Your task to perform on an android device: Open Google Chrome and click the shortcut for Amazon.com Image 0: 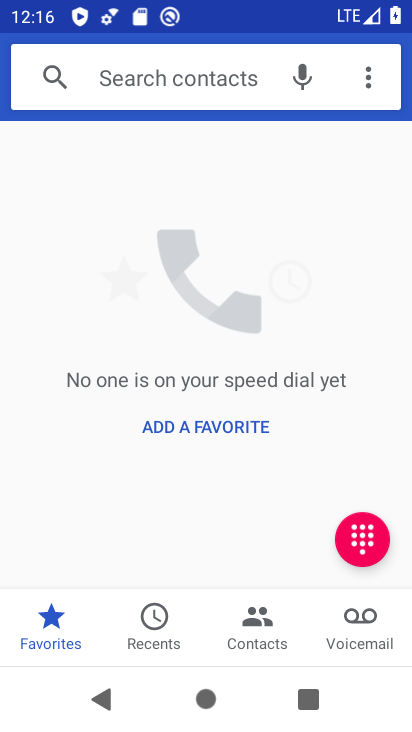
Step 0: press home button
Your task to perform on an android device: Open Google Chrome and click the shortcut for Amazon.com Image 1: 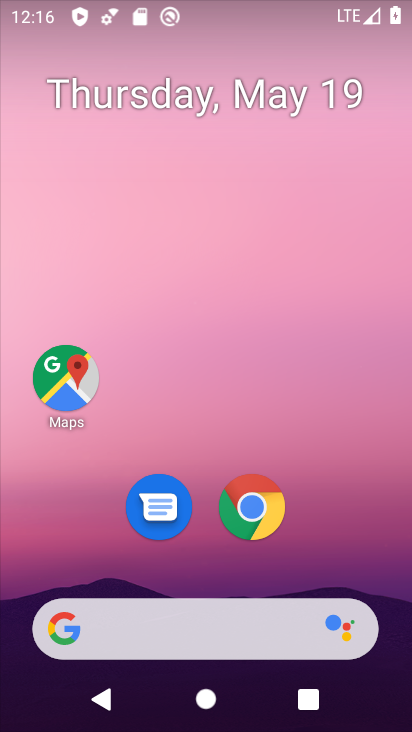
Step 1: click (248, 523)
Your task to perform on an android device: Open Google Chrome and click the shortcut for Amazon.com Image 2: 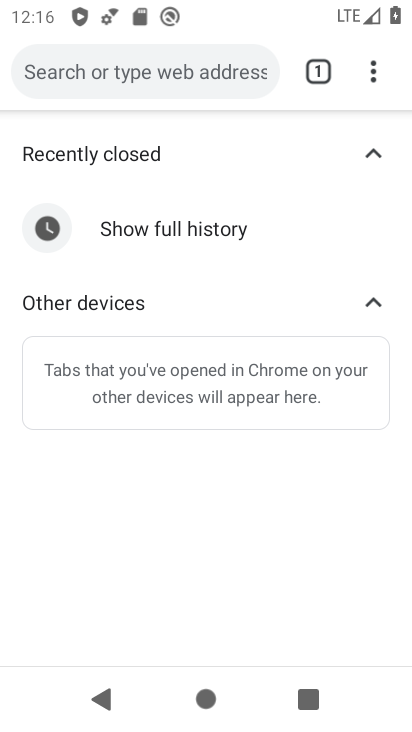
Step 2: click (375, 74)
Your task to perform on an android device: Open Google Chrome and click the shortcut for Amazon.com Image 3: 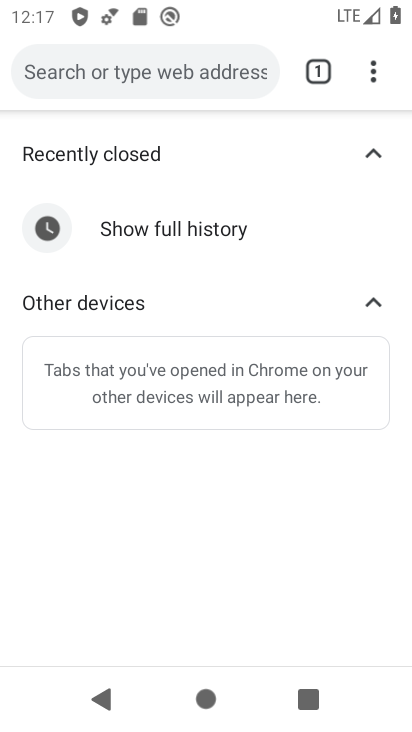
Step 3: click (319, 62)
Your task to perform on an android device: Open Google Chrome and click the shortcut for Amazon.com Image 4: 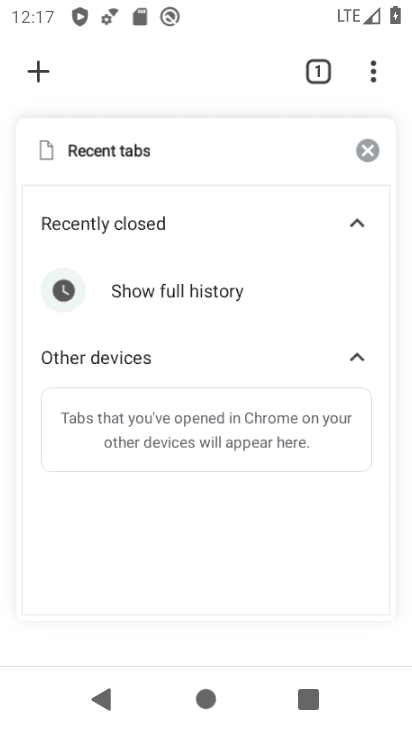
Step 4: click (40, 70)
Your task to perform on an android device: Open Google Chrome and click the shortcut for Amazon.com Image 5: 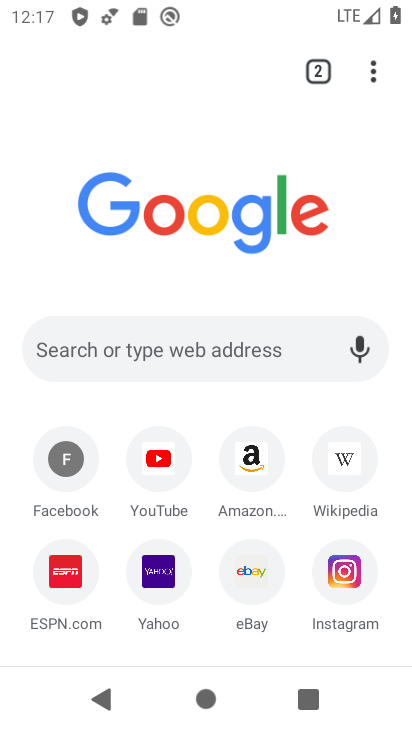
Step 5: click (261, 476)
Your task to perform on an android device: Open Google Chrome and click the shortcut for Amazon.com Image 6: 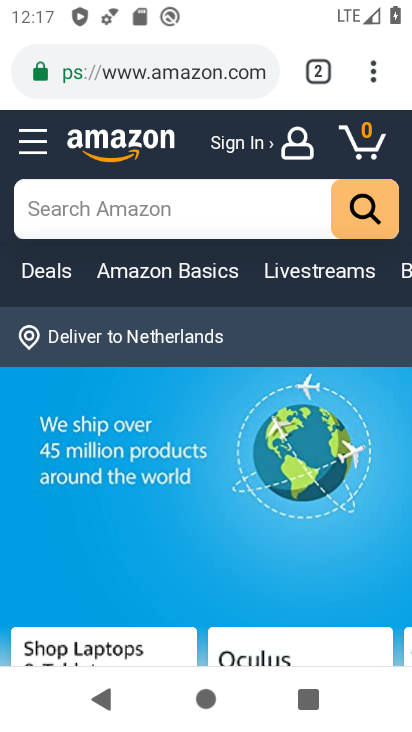
Step 6: task complete